Your task to perform on an android device: Clear the cart on newegg.com. Search for "razer naga" on newegg.com, select the first entry, add it to the cart, then select checkout. Image 0: 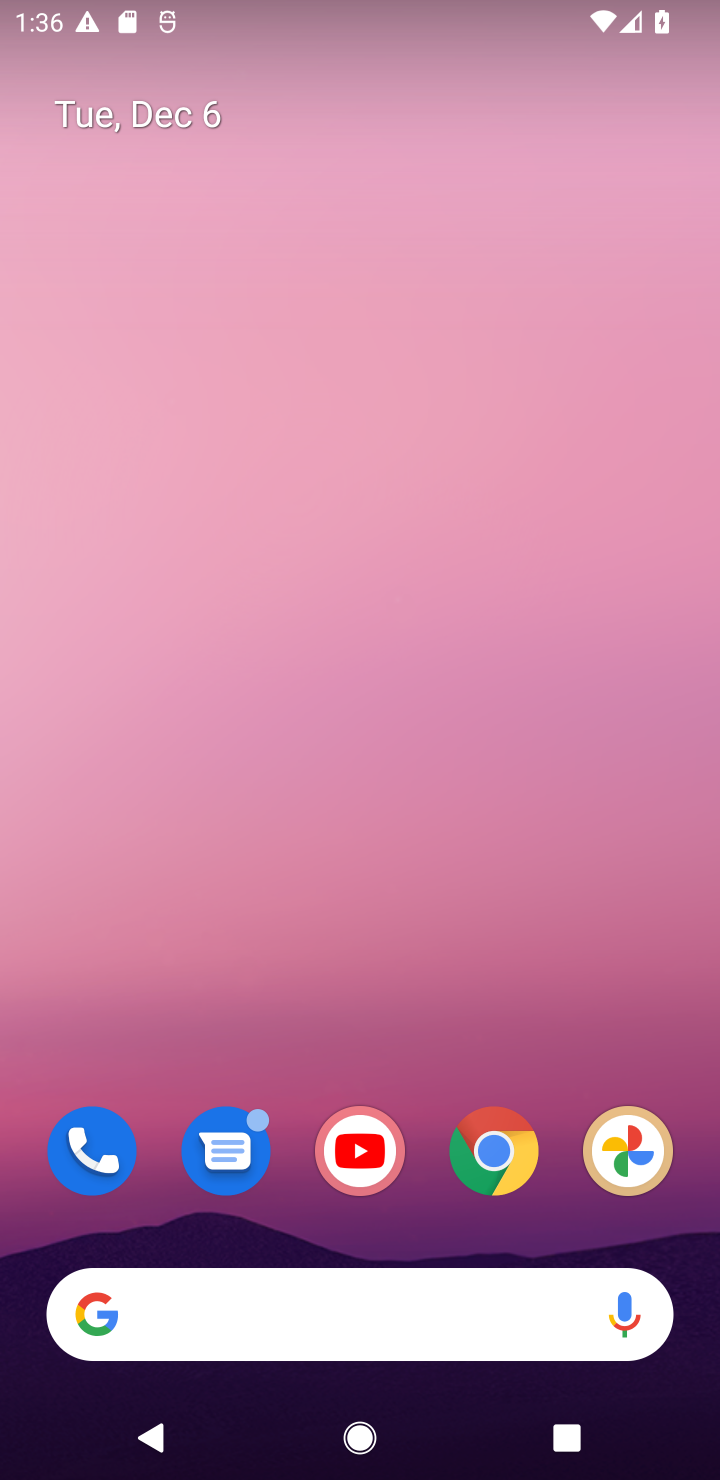
Step 0: click (497, 1169)
Your task to perform on an android device: Clear the cart on newegg.com. Search for "razer naga" on newegg.com, select the first entry, add it to the cart, then select checkout. Image 1: 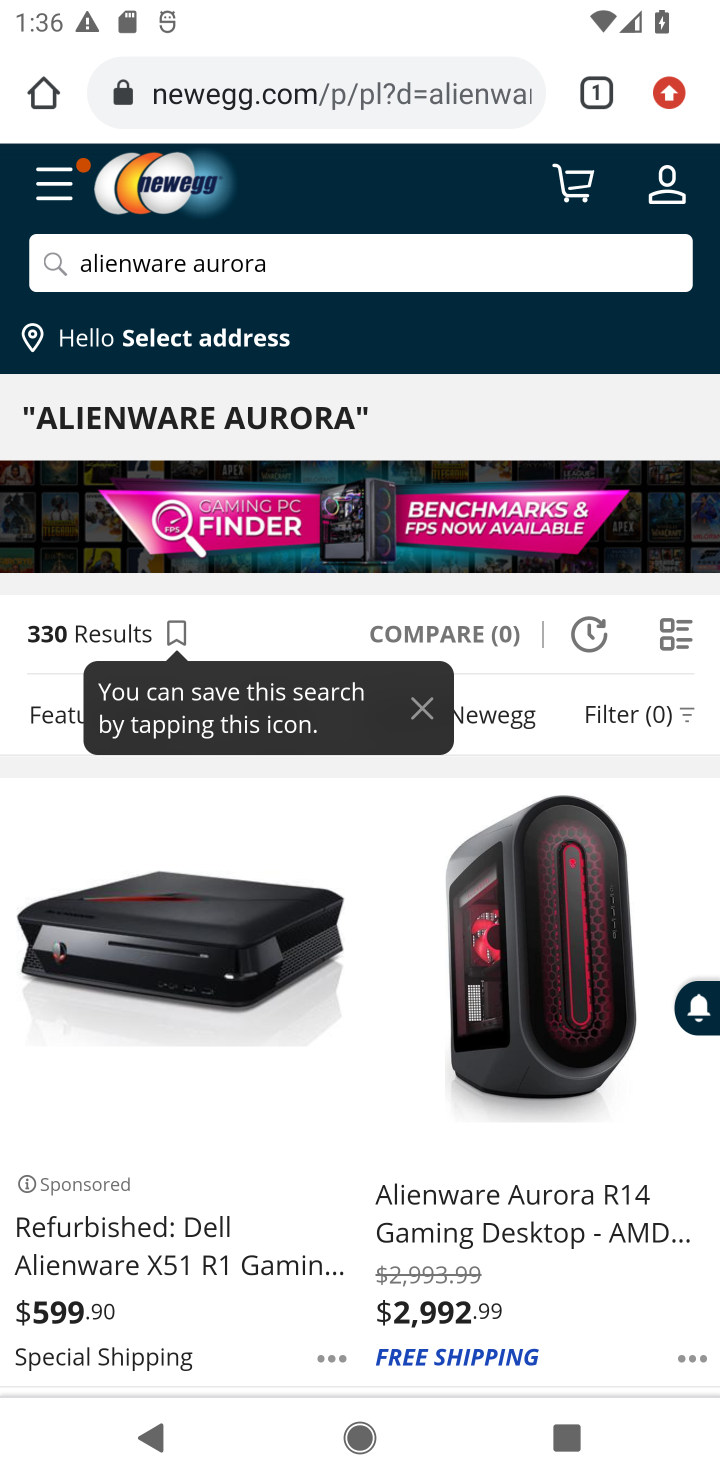
Step 1: click (574, 189)
Your task to perform on an android device: Clear the cart on newegg.com. Search for "razer naga" on newegg.com, select the first entry, add it to the cart, then select checkout. Image 2: 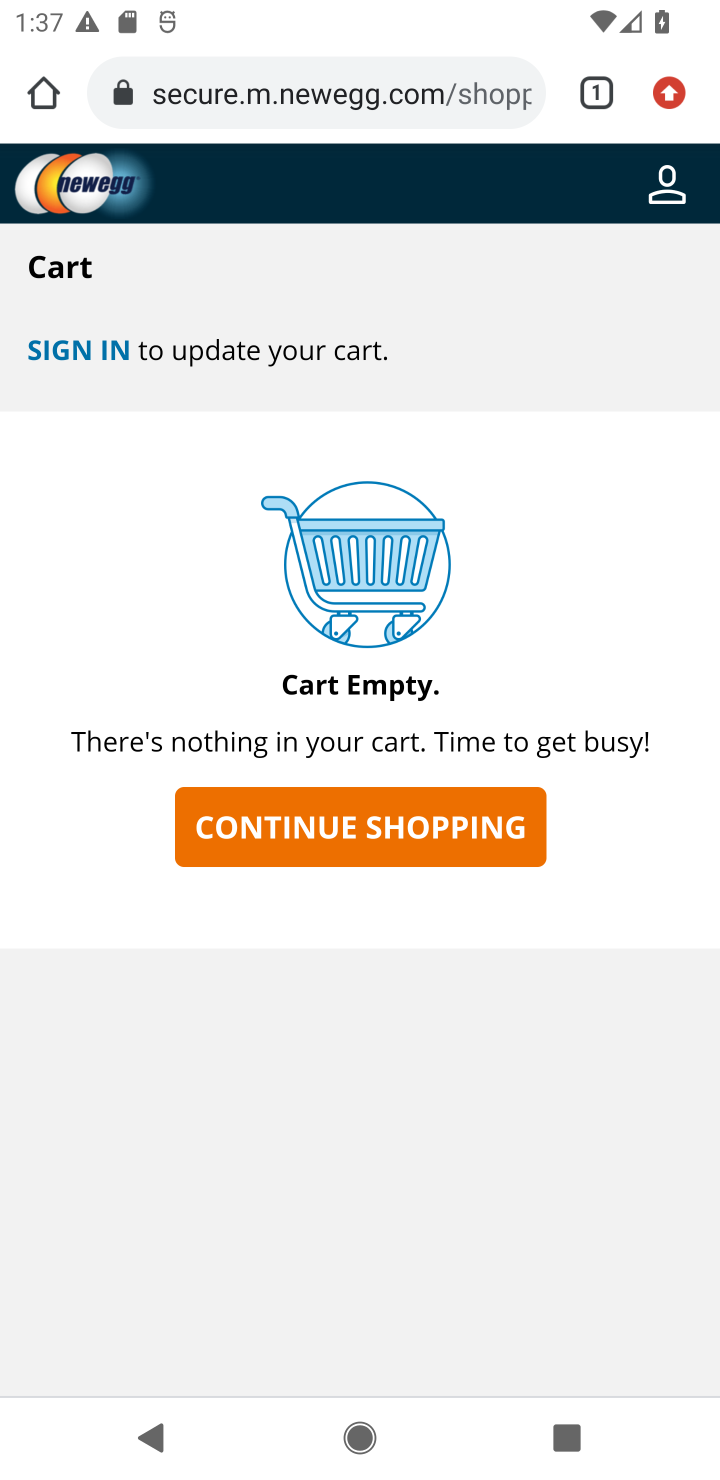
Step 2: click (346, 810)
Your task to perform on an android device: Clear the cart on newegg.com. Search for "razer naga" on newegg.com, select the first entry, add it to the cart, then select checkout. Image 3: 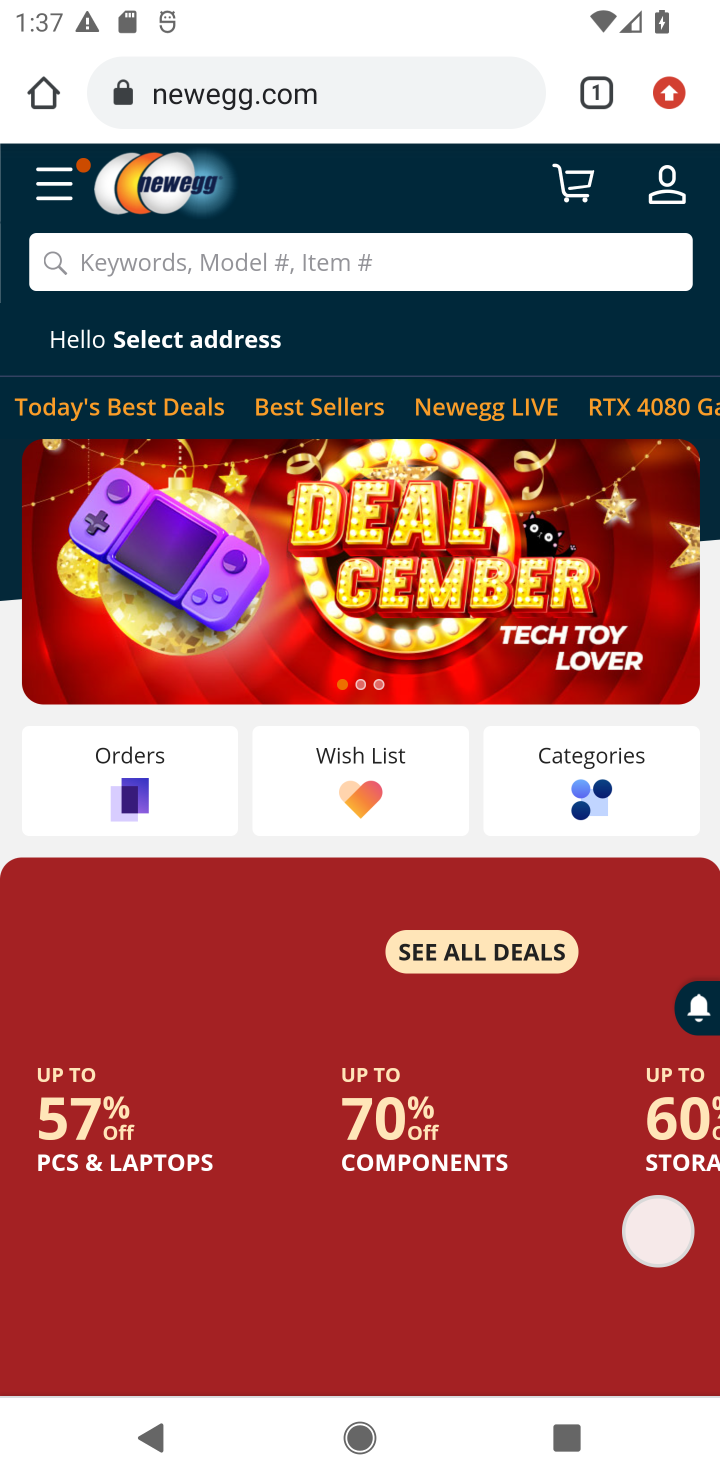
Step 3: click (126, 269)
Your task to perform on an android device: Clear the cart on newegg.com. Search for "razer naga" on newegg.com, select the first entry, add it to the cart, then select checkout. Image 4: 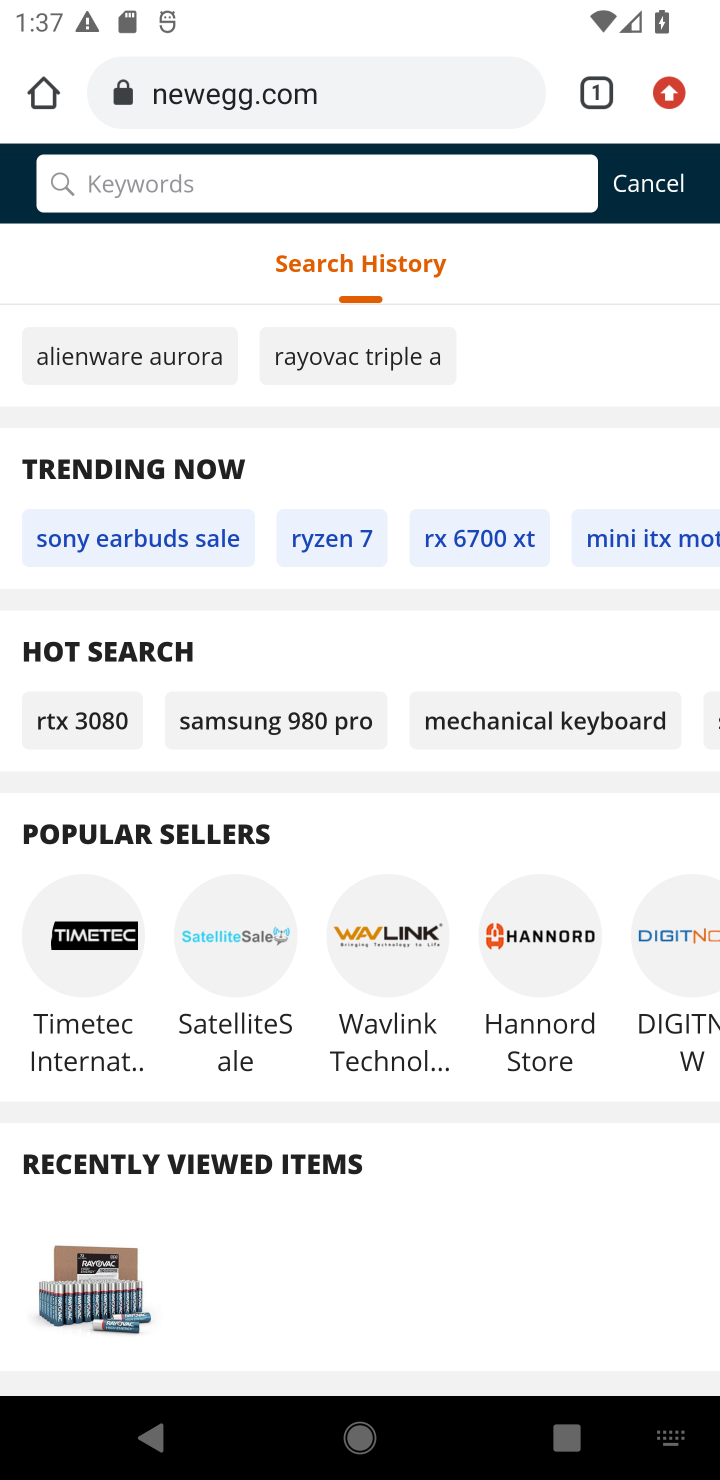
Step 4: type "razer naga"
Your task to perform on an android device: Clear the cart on newegg.com. Search for "razer naga" on newegg.com, select the first entry, add it to the cart, then select checkout. Image 5: 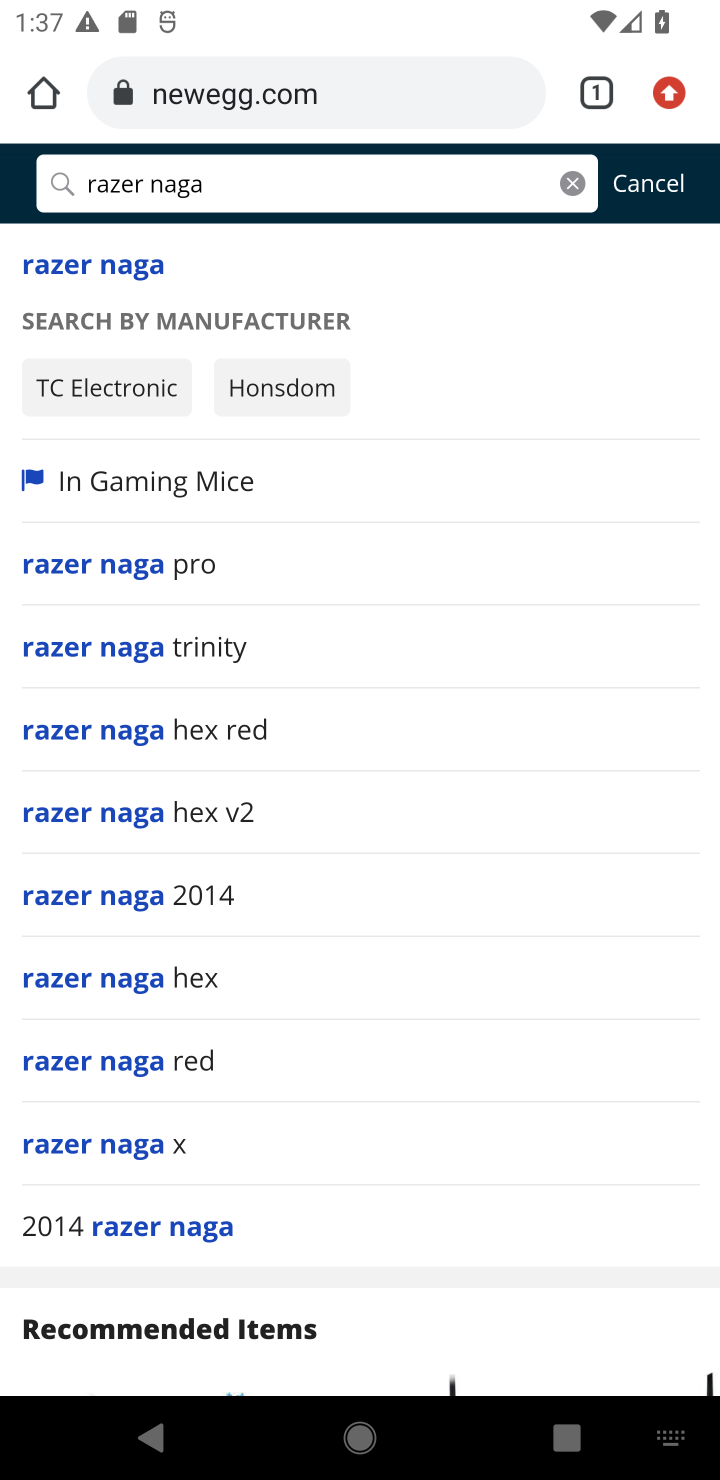
Step 5: click (90, 278)
Your task to perform on an android device: Clear the cart on newegg.com. Search for "razer naga" on newegg.com, select the first entry, add it to the cart, then select checkout. Image 6: 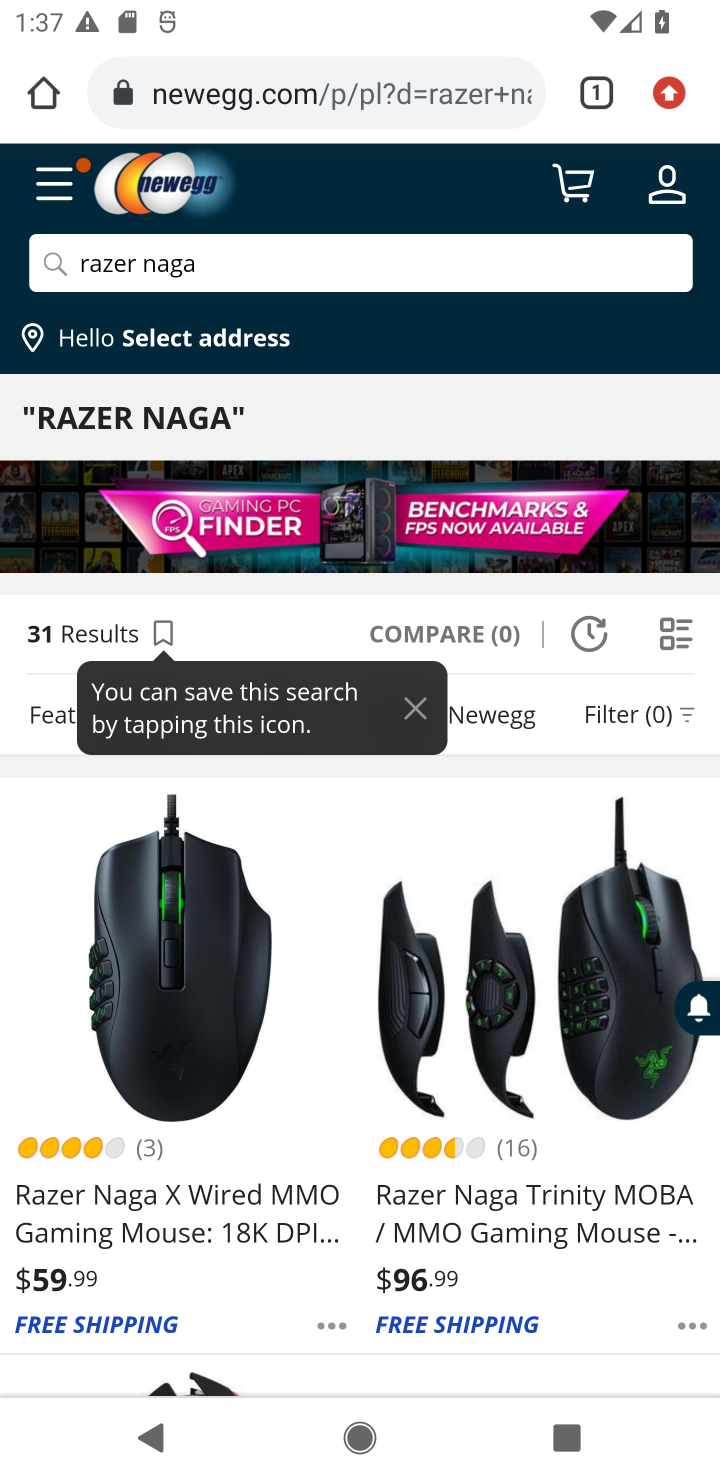
Step 6: click (142, 1215)
Your task to perform on an android device: Clear the cart on newegg.com. Search for "razer naga" on newegg.com, select the first entry, add it to the cart, then select checkout. Image 7: 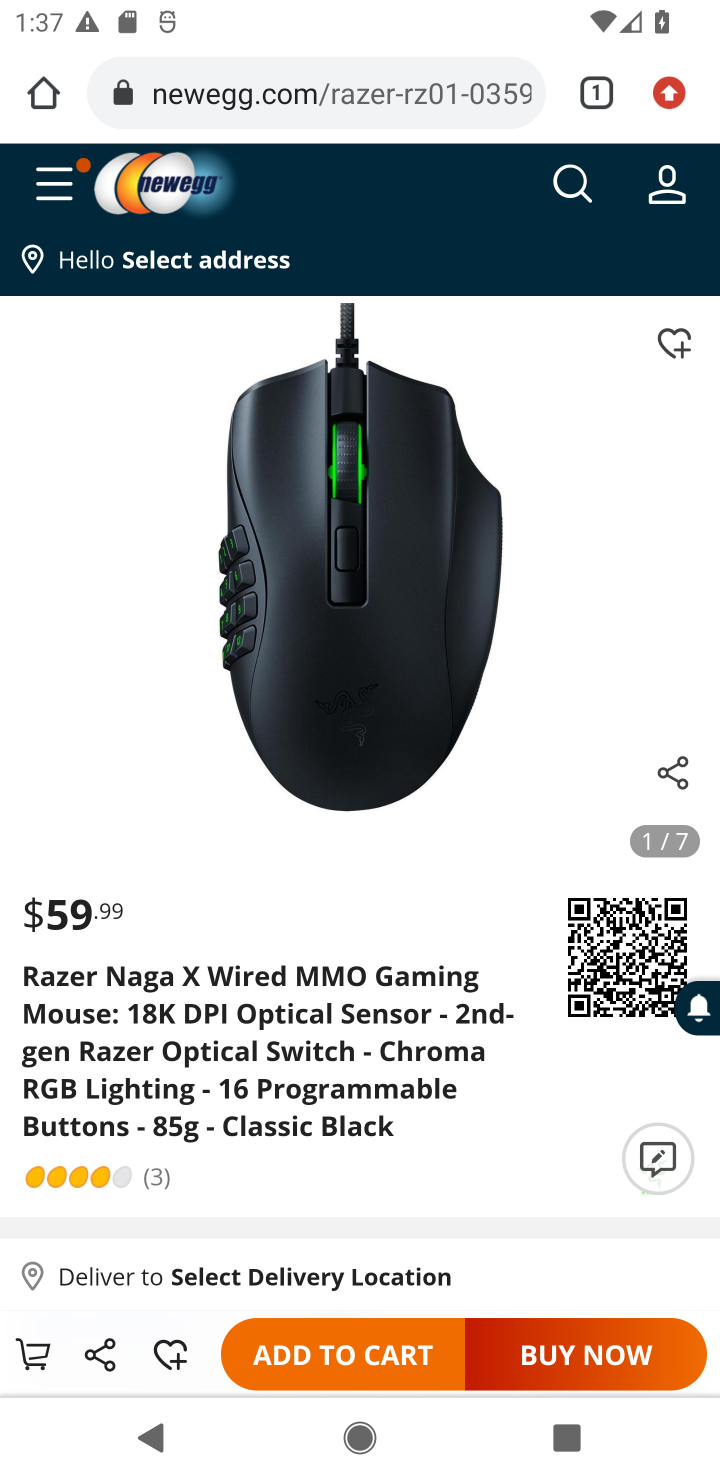
Step 7: click (323, 1367)
Your task to perform on an android device: Clear the cart on newegg.com. Search for "razer naga" on newegg.com, select the first entry, add it to the cart, then select checkout. Image 8: 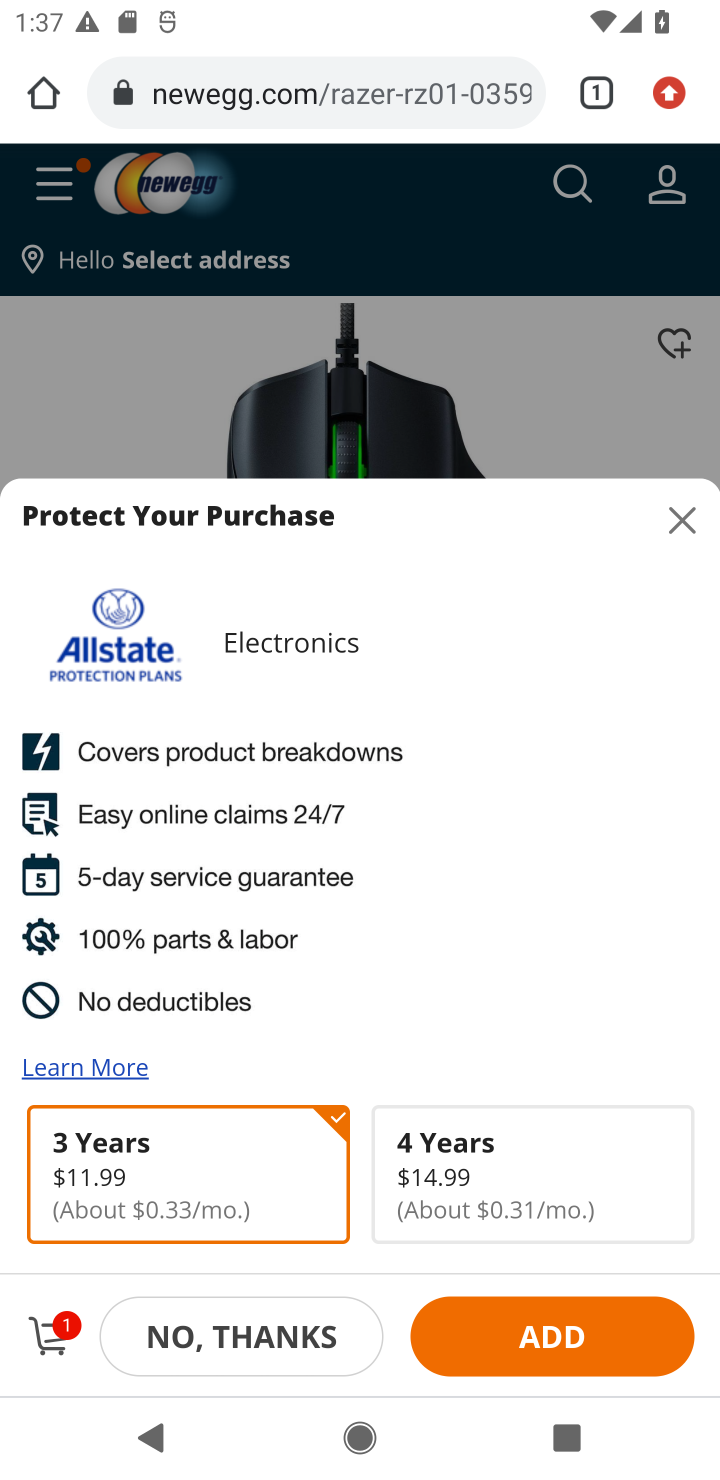
Step 8: click (62, 1333)
Your task to perform on an android device: Clear the cart on newegg.com. Search for "razer naga" on newegg.com, select the first entry, add it to the cart, then select checkout. Image 9: 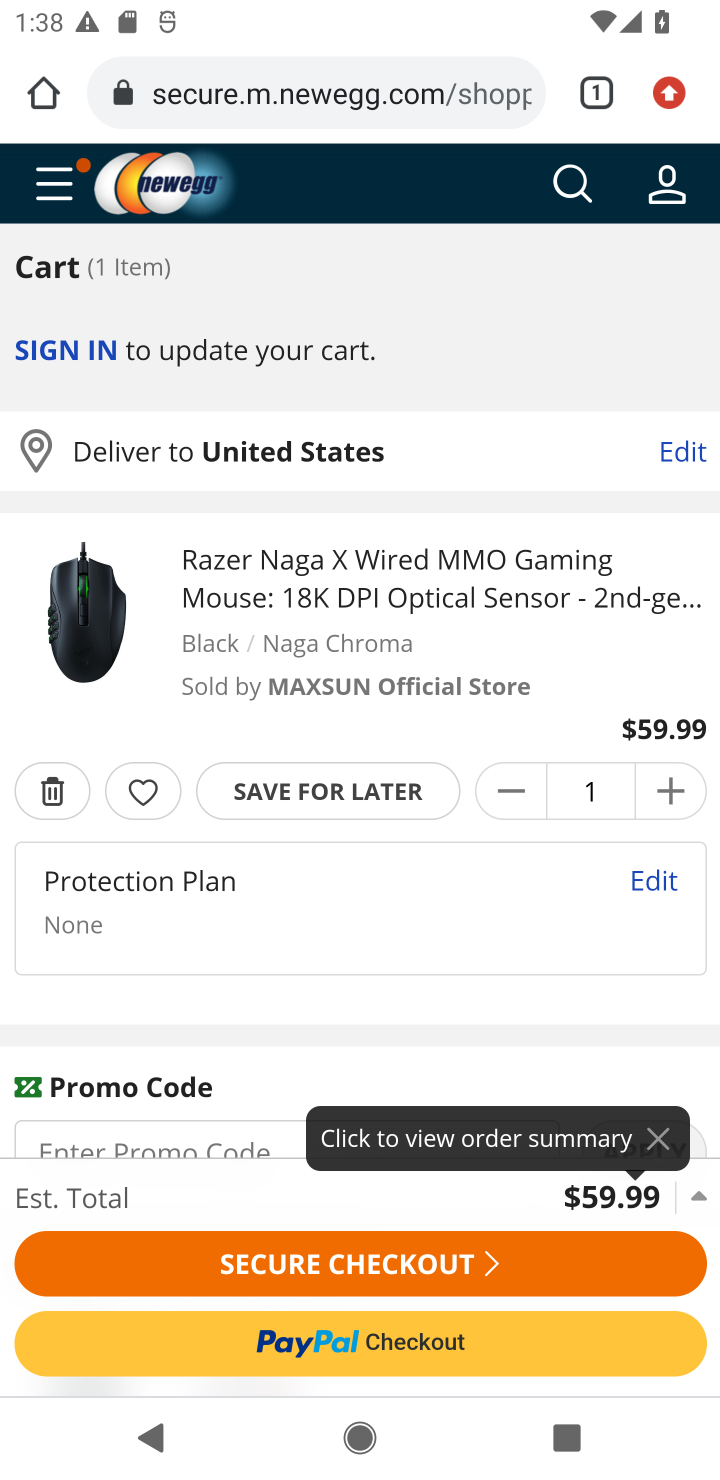
Step 9: click (392, 1264)
Your task to perform on an android device: Clear the cart on newegg.com. Search for "razer naga" on newegg.com, select the first entry, add it to the cart, then select checkout. Image 10: 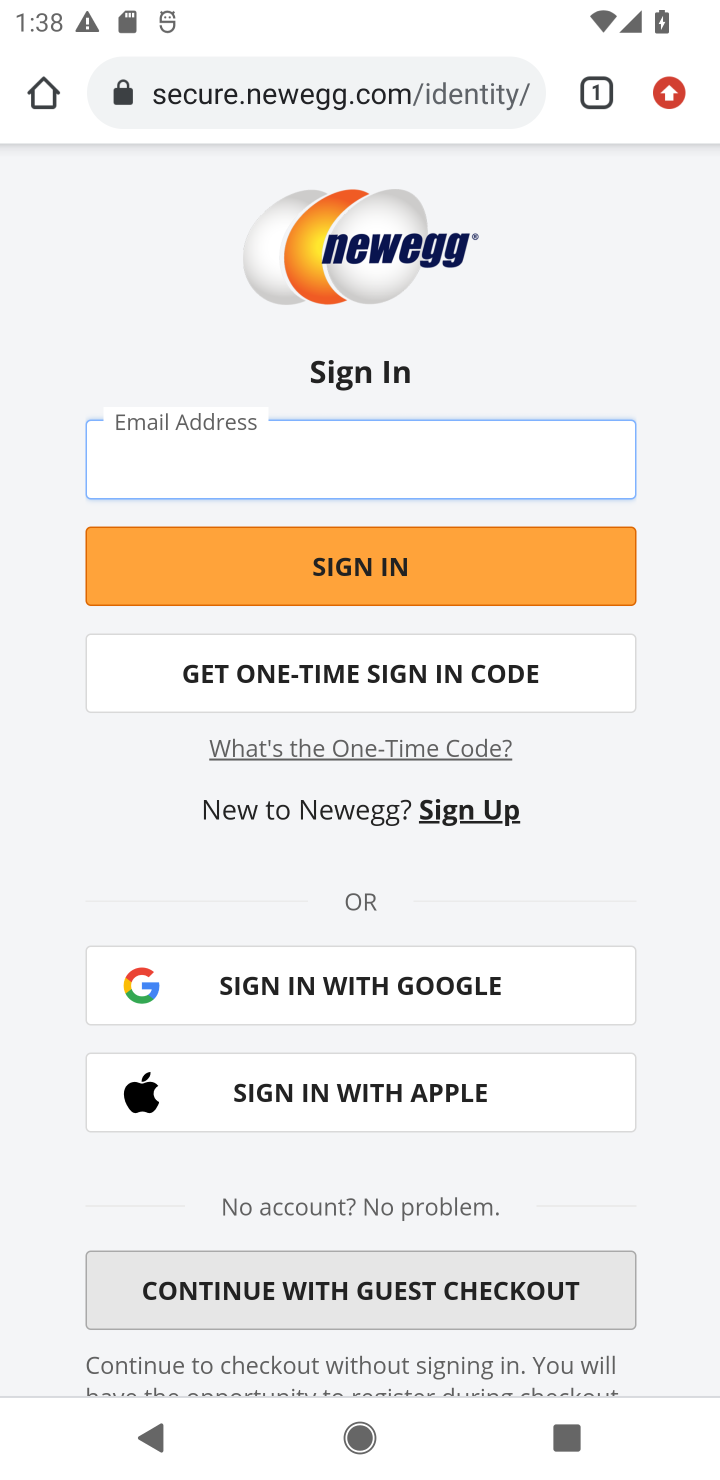
Step 10: task complete